Your task to perform on an android device: turn on javascript in the chrome app Image 0: 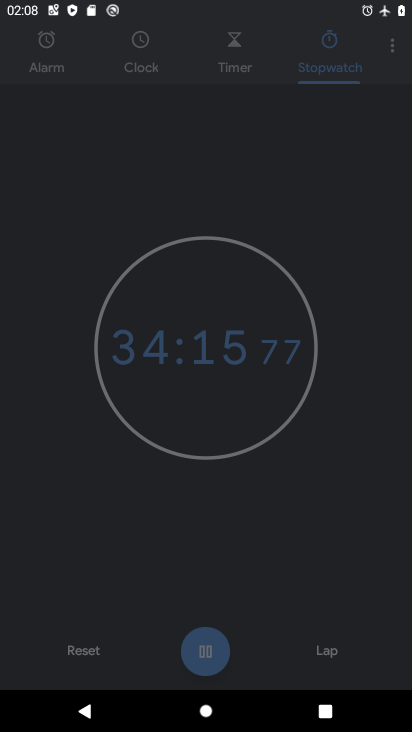
Step 0: drag from (222, 412) to (266, 71)
Your task to perform on an android device: turn on javascript in the chrome app Image 1: 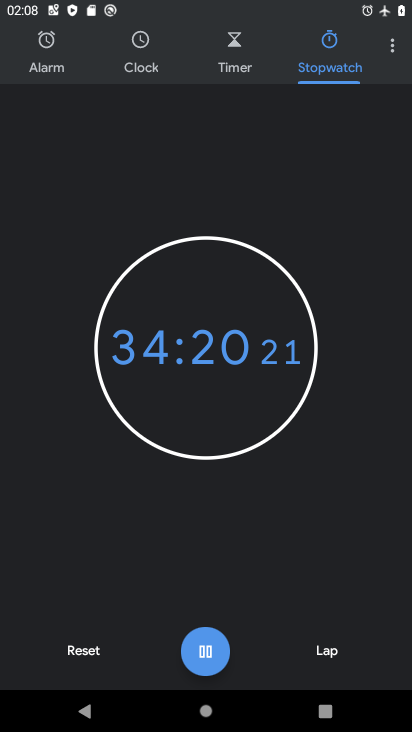
Step 1: press home button
Your task to perform on an android device: turn on javascript in the chrome app Image 2: 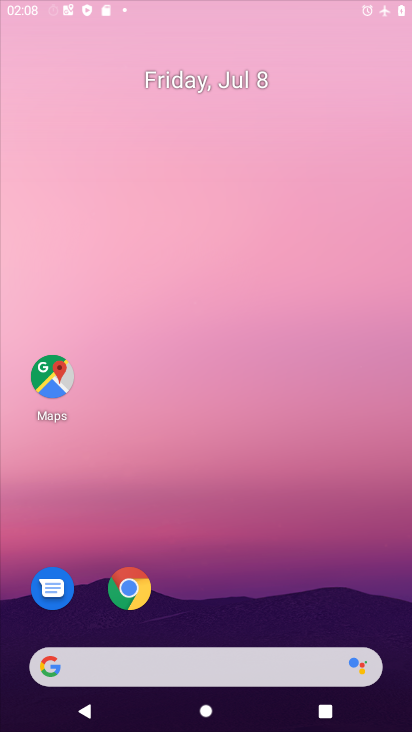
Step 2: drag from (216, 677) to (244, 126)
Your task to perform on an android device: turn on javascript in the chrome app Image 3: 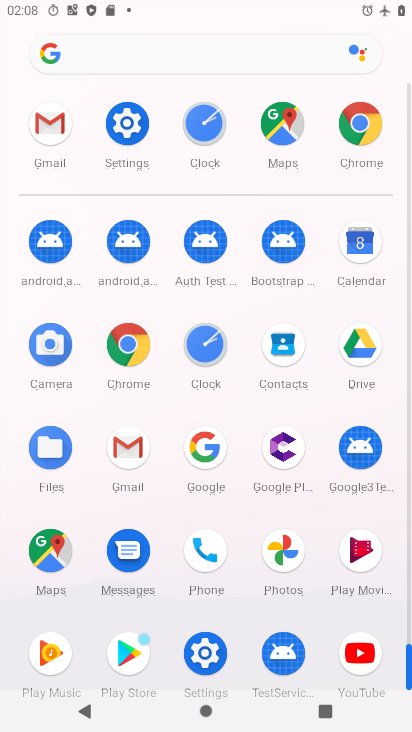
Step 3: click (129, 337)
Your task to perform on an android device: turn on javascript in the chrome app Image 4: 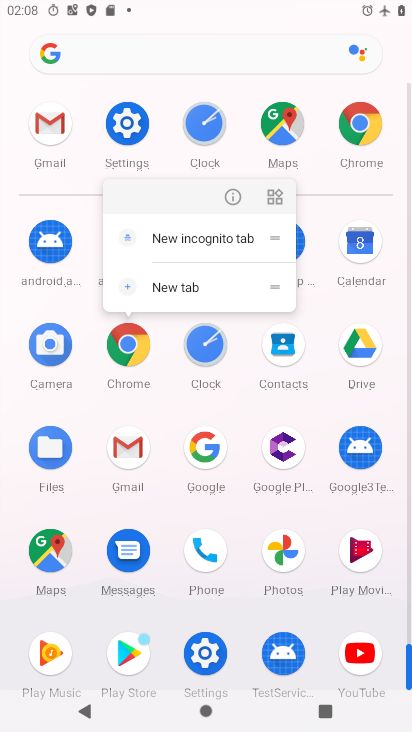
Step 4: click (233, 195)
Your task to perform on an android device: turn on javascript in the chrome app Image 5: 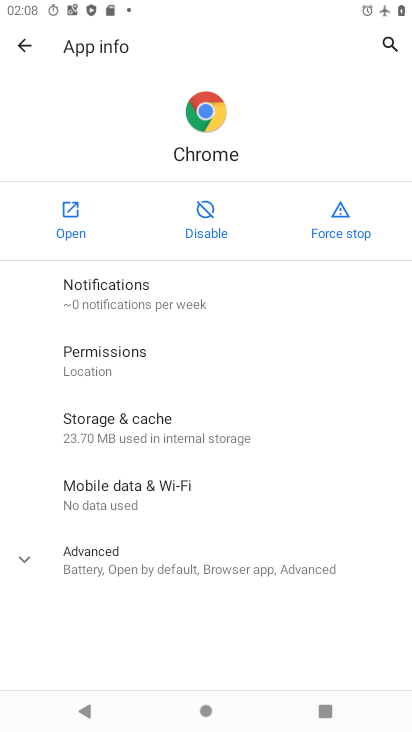
Step 5: click (76, 216)
Your task to perform on an android device: turn on javascript in the chrome app Image 6: 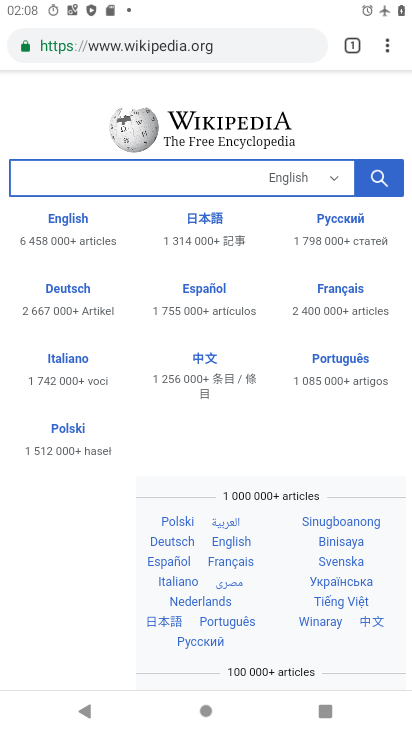
Step 6: drag from (169, 207) to (213, 691)
Your task to perform on an android device: turn on javascript in the chrome app Image 7: 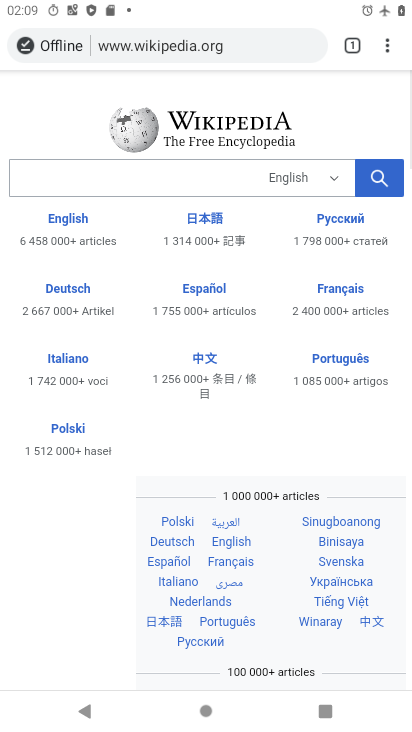
Step 7: click (382, 44)
Your task to perform on an android device: turn on javascript in the chrome app Image 8: 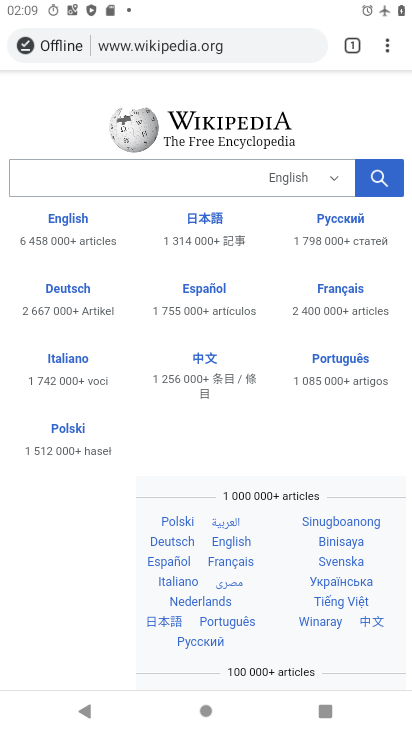
Step 8: drag from (382, 44) to (294, 502)
Your task to perform on an android device: turn on javascript in the chrome app Image 9: 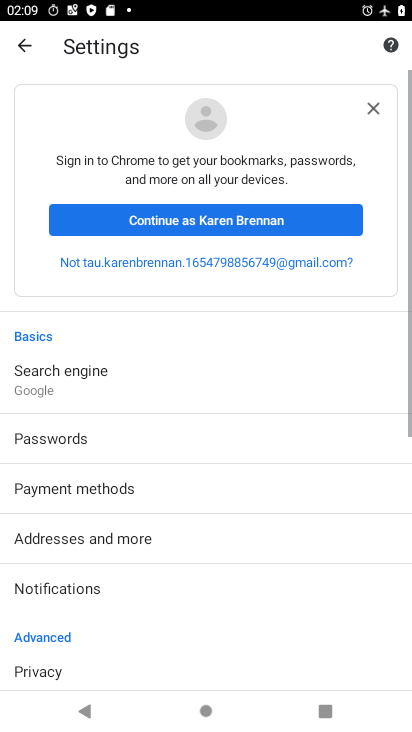
Step 9: drag from (230, 640) to (294, 161)
Your task to perform on an android device: turn on javascript in the chrome app Image 10: 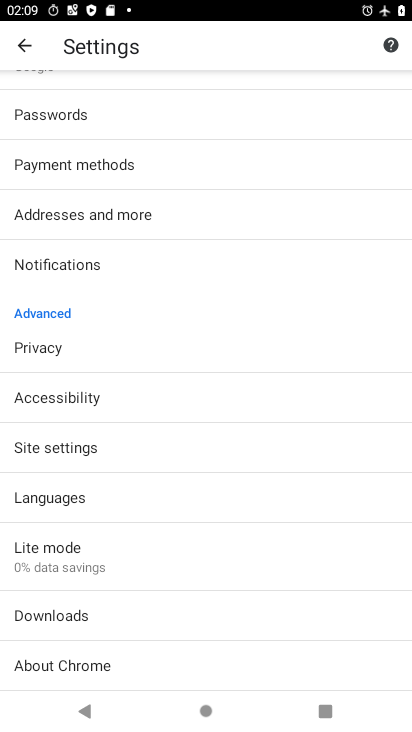
Step 10: click (98, 482)
Your task to perform on an android device: turn on javascript in the chrome app Image 11: 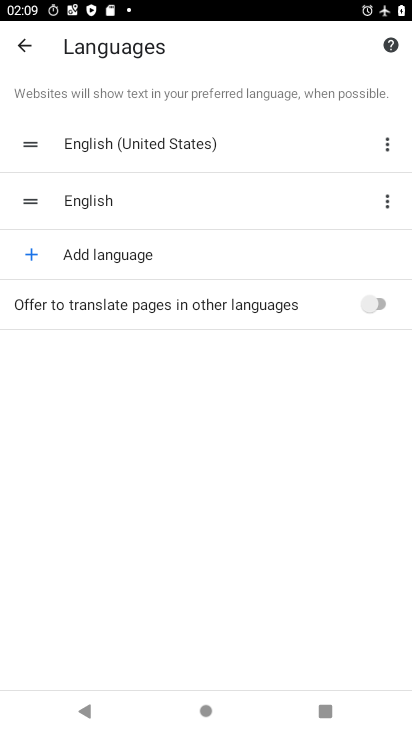
Step 11: click (11, 45)
Your task to perform on an android device: turn on javascript in the chrome app Image 12: 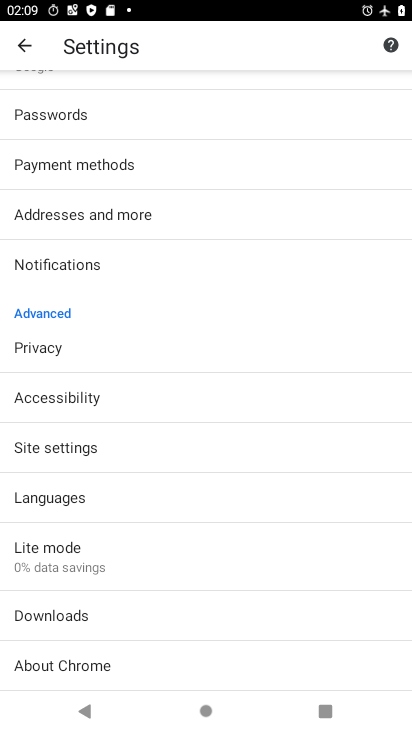
Step 12: click (111, 444)
Your task to perform on an android device: turn on javascript in the chrome app Image 13: 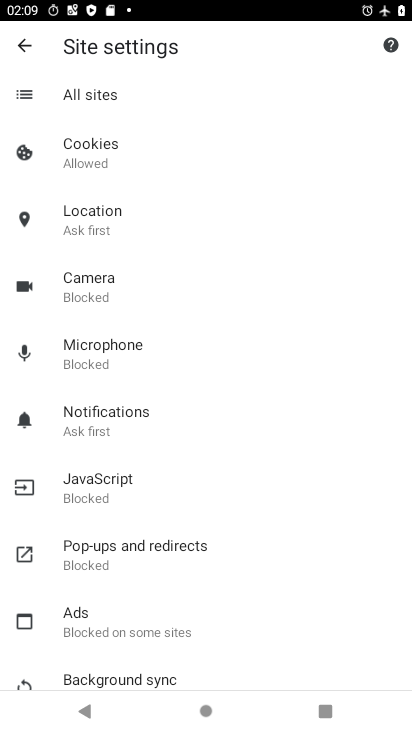
Step 13: click (149, 485)
Your task to perform on an android device: turn on javascript in the chrome app Image 14: 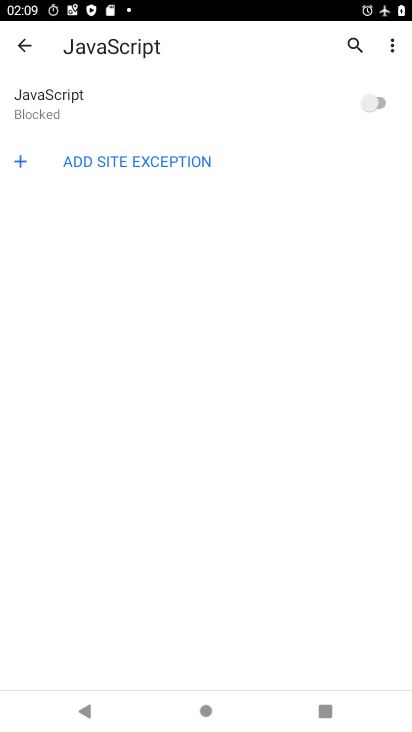
Step 14: click (375, 97)
Your task to perform on an android device: turn on javascript in the chrome app Image 15: 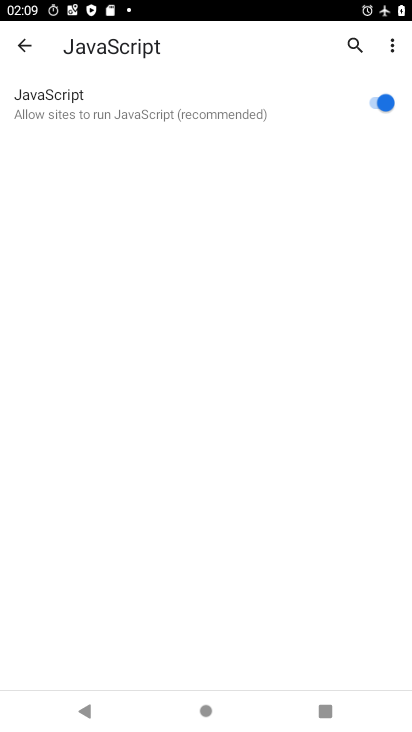
Step 15: task complete